Your task to perform on an android device: toggle wifi Image 0: 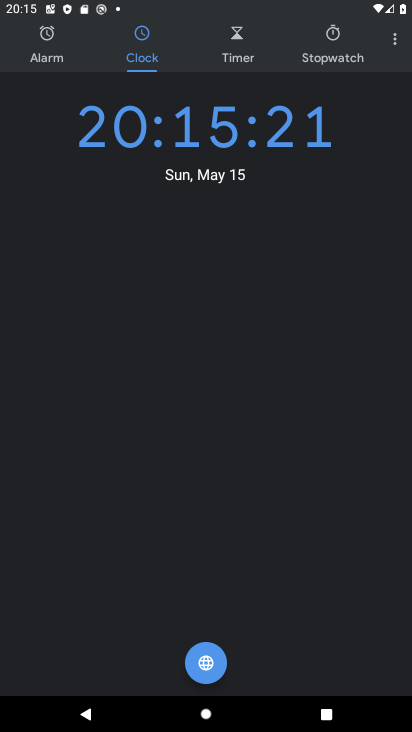
Step 0: press home button
Your task to perform on an android device: toggle wifi Image 1: 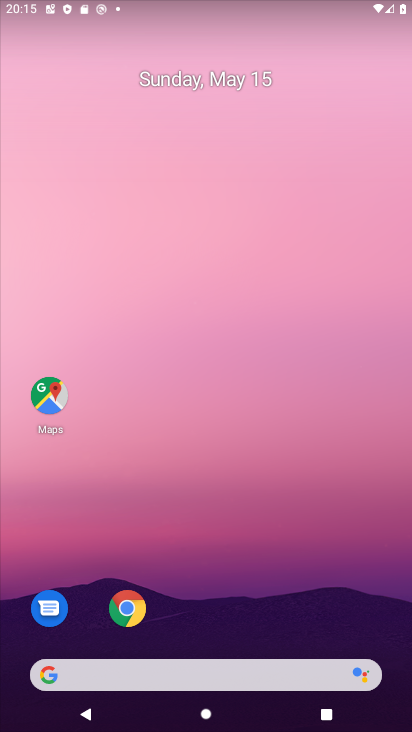
Step 1: drag from (190, 602) to (247, 141)
Your task to perform on an android device: toggle wifi Image 2: 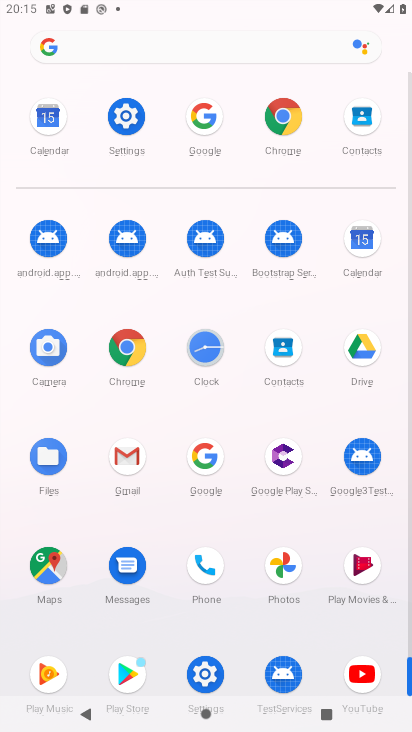
Step 2: click (125, 109)
Your task to perform on an android device: toggle wifi Image 3: 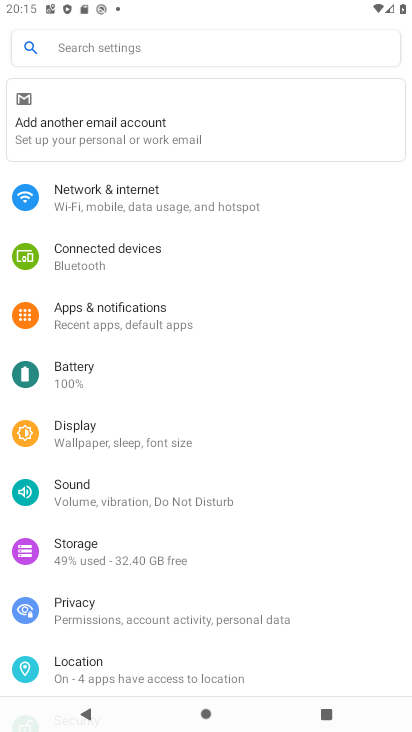
Step 3: click (137, 198)
Your task to perform on an android device: toggle wifi Image 4: 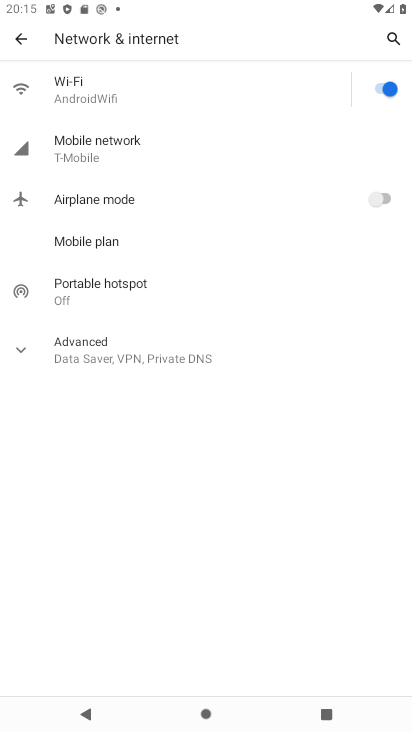
Step 4: click (391, 85)
Your task to perform on an android device: toggle wifi Image 5: 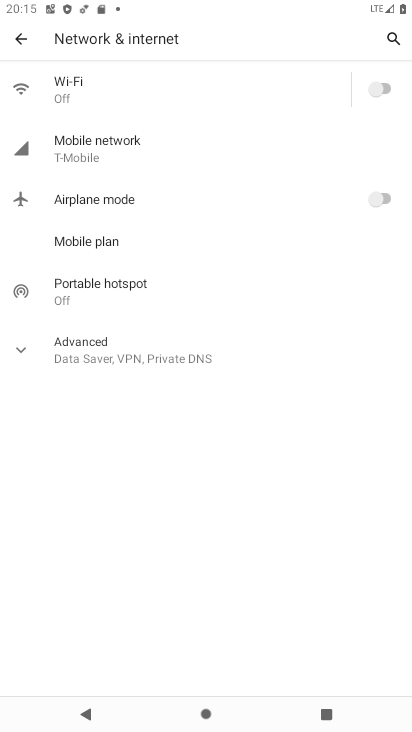
Step 5: task complete